Your task to perform on an android device: Open calendar and show me the third week of next month Image 0: 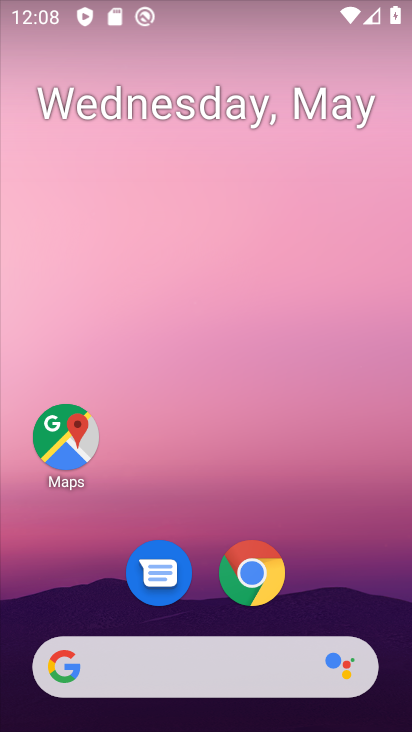
Step 0: drag from (365, 547) to (374, 102)
Your task to perform on an android device: Open calendar and show me the third week of next month Image 1: 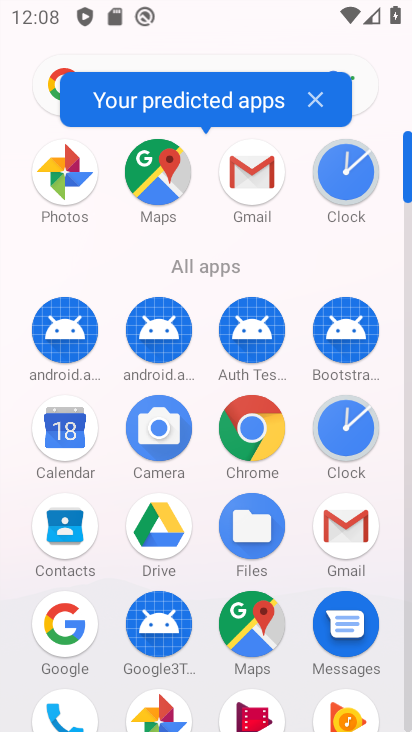
Step 1: click (59, 417)
Your task to perform on an android device: Open calendar and show me the third week of next month Image 2: 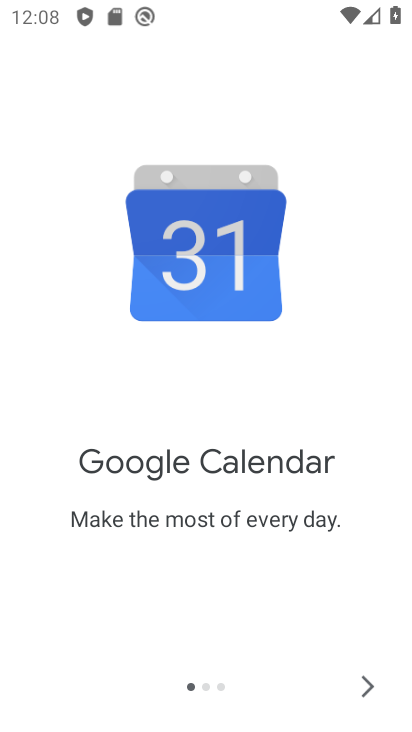
Step 2: click (366, 691)
Your task to perform on an android device: Open calendar and show me the third week of next month Image 3: 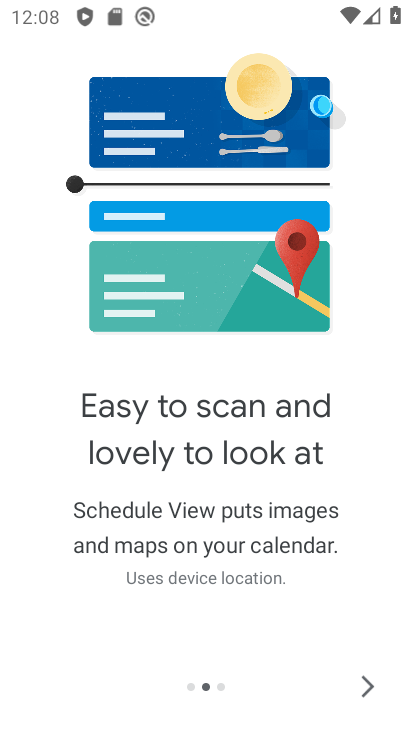
Step 3: click (360, 690)
Your task to perform on an android device: Open calendar and show me the third week of next month Image 4: 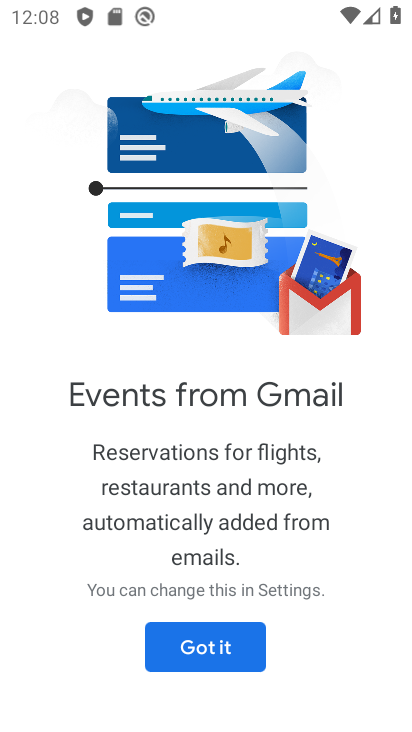
Step 4: click (200, 652)
Your task to perform on an android device: Open calendar and show me the third week of next month Image 5: 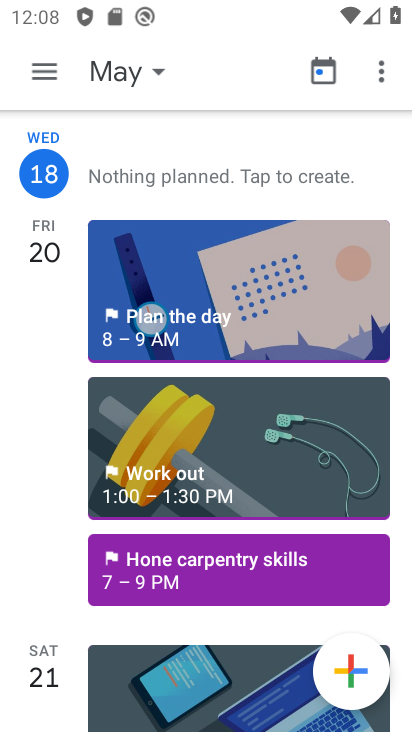
Step 5: click (153, 71)
Your task to perform on an android device: Open calendar and show me the third week of next month Image 6: 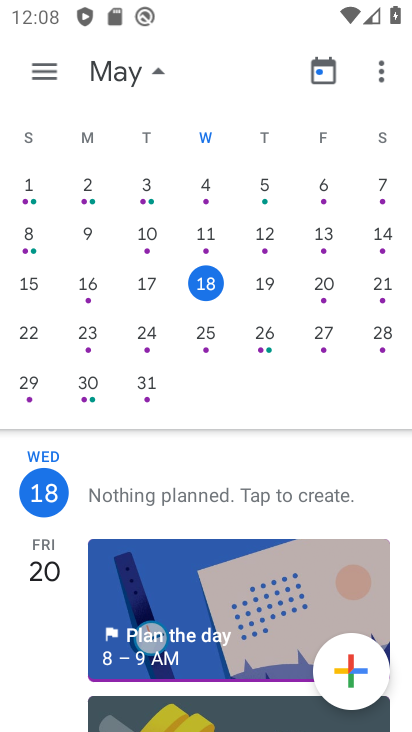
Step 6: drag from (388, 262) to (0, 254)
Your task to perform on an android device: Open calendar and show me the third week of next month Image 7: 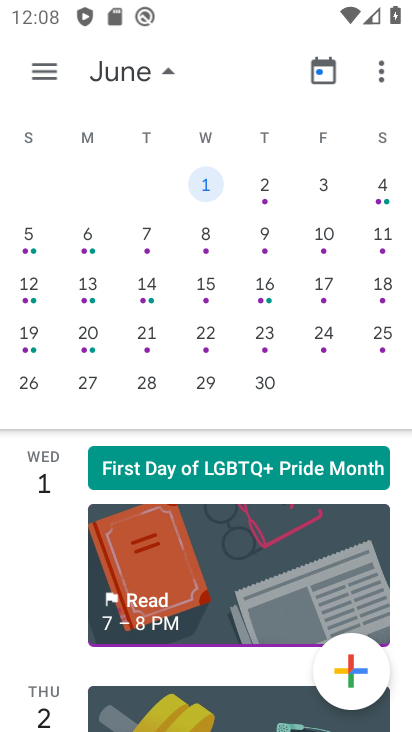
Step 7: click (147, 282)
Your task to perform on an android device: Open calendar and show me the third week of next month Image 8: 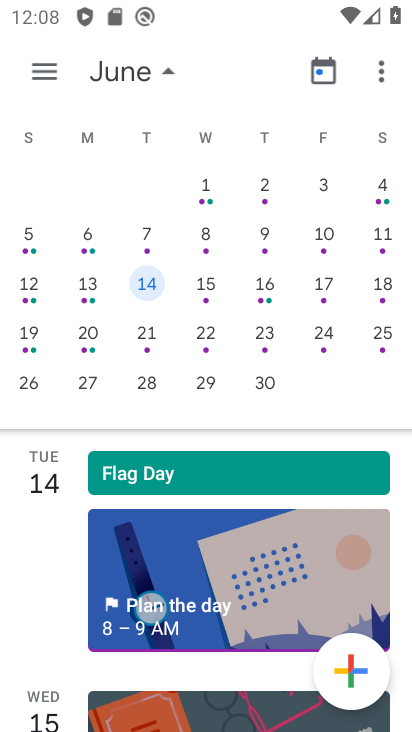
Step 8: task complete